Your task to perform on an android device: Open Chrome and go to the settings page Image 0: 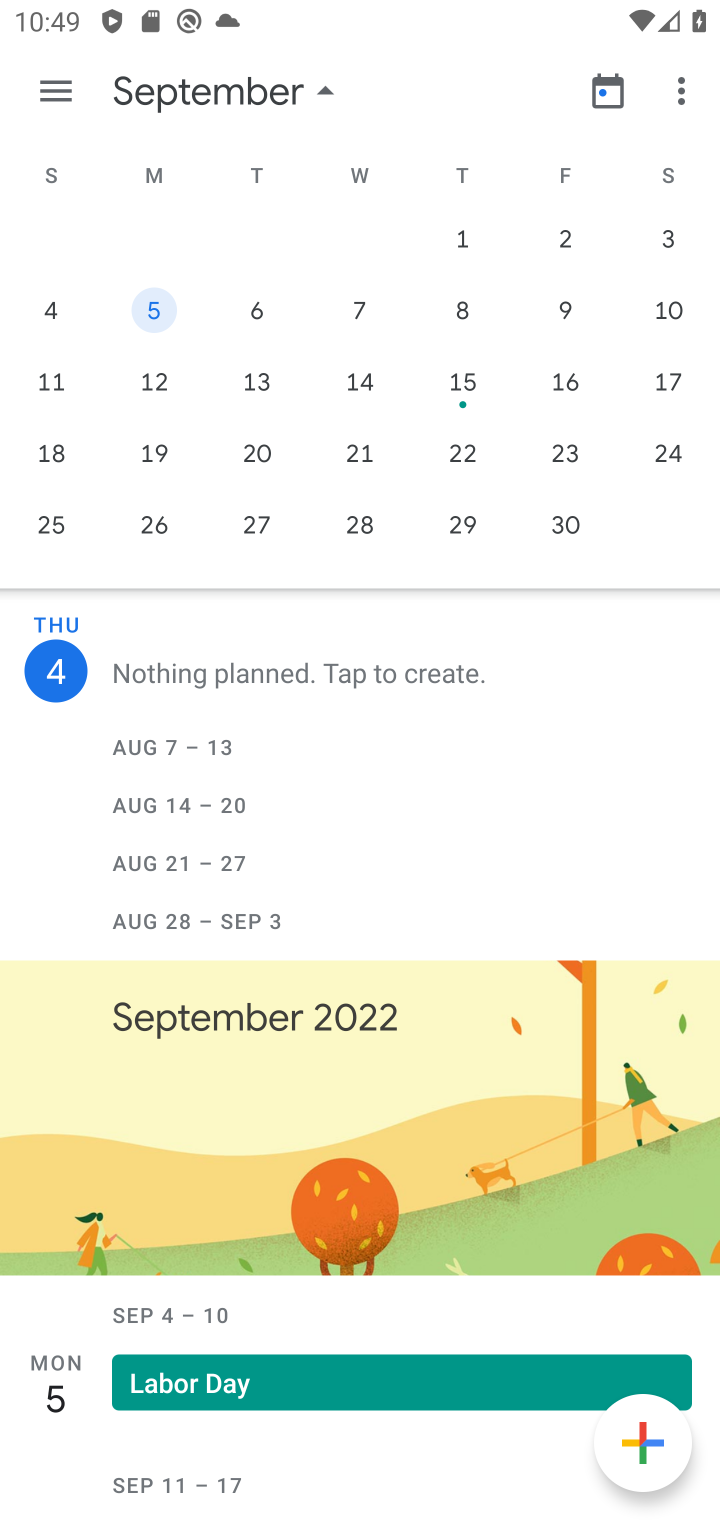
Step 0: press home button
Your task to perform on an android device: Open Chrome and go to the settings page Image 1: 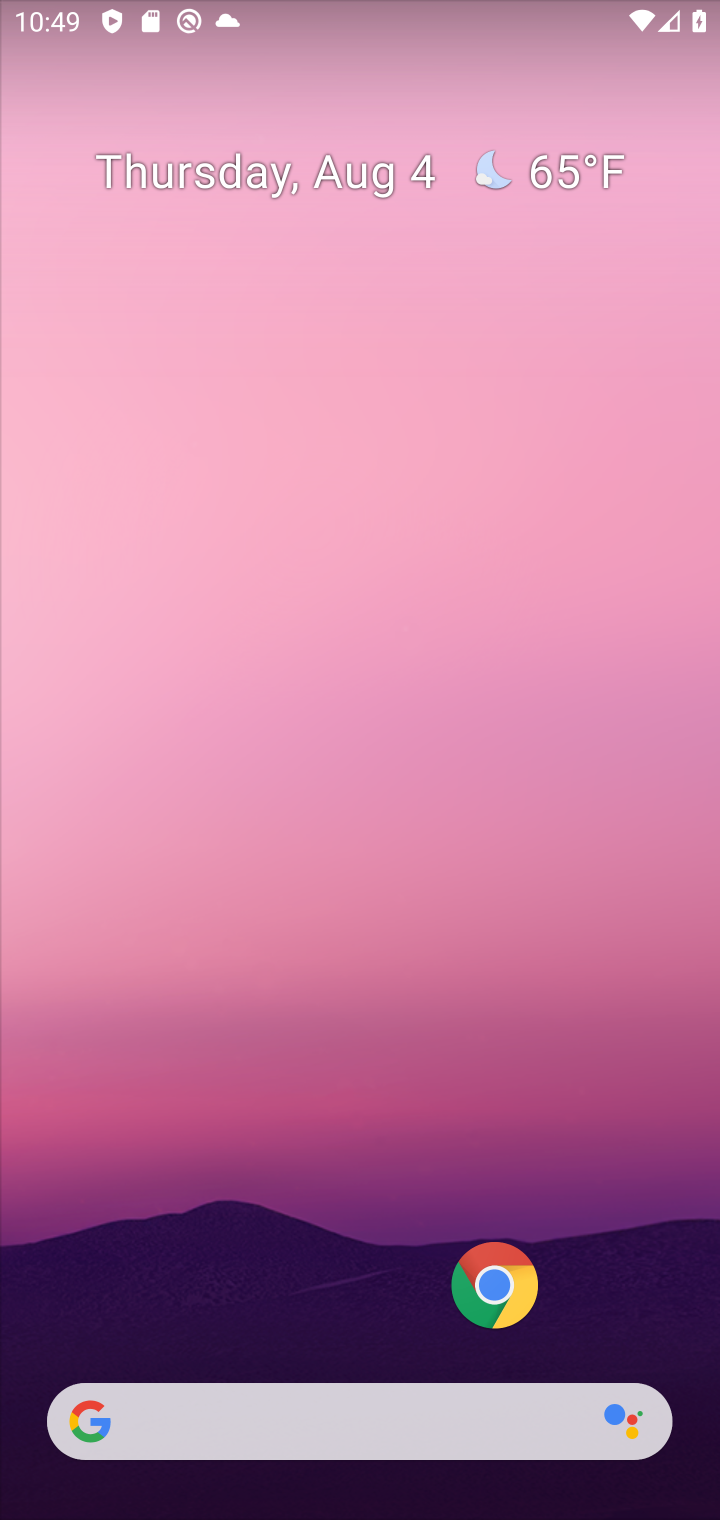
Step 1: drag from (369, 1130) to (689, 47)
Your task to perform on an android device: Open Chrome and go to the settings page Image 2: 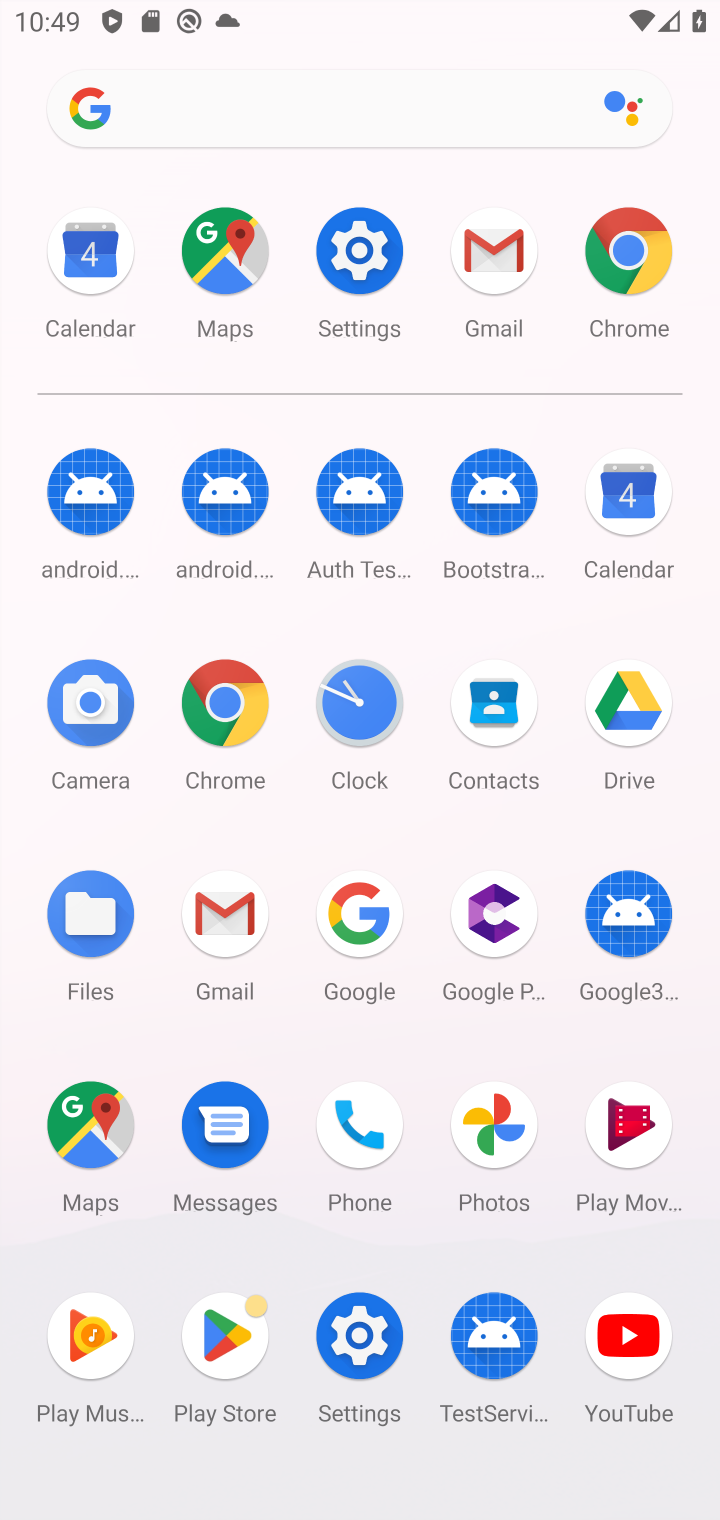
Step 2: click (221, 710)
Your task to perform on an android device: Open Chrome and go to the settings page Image 3: 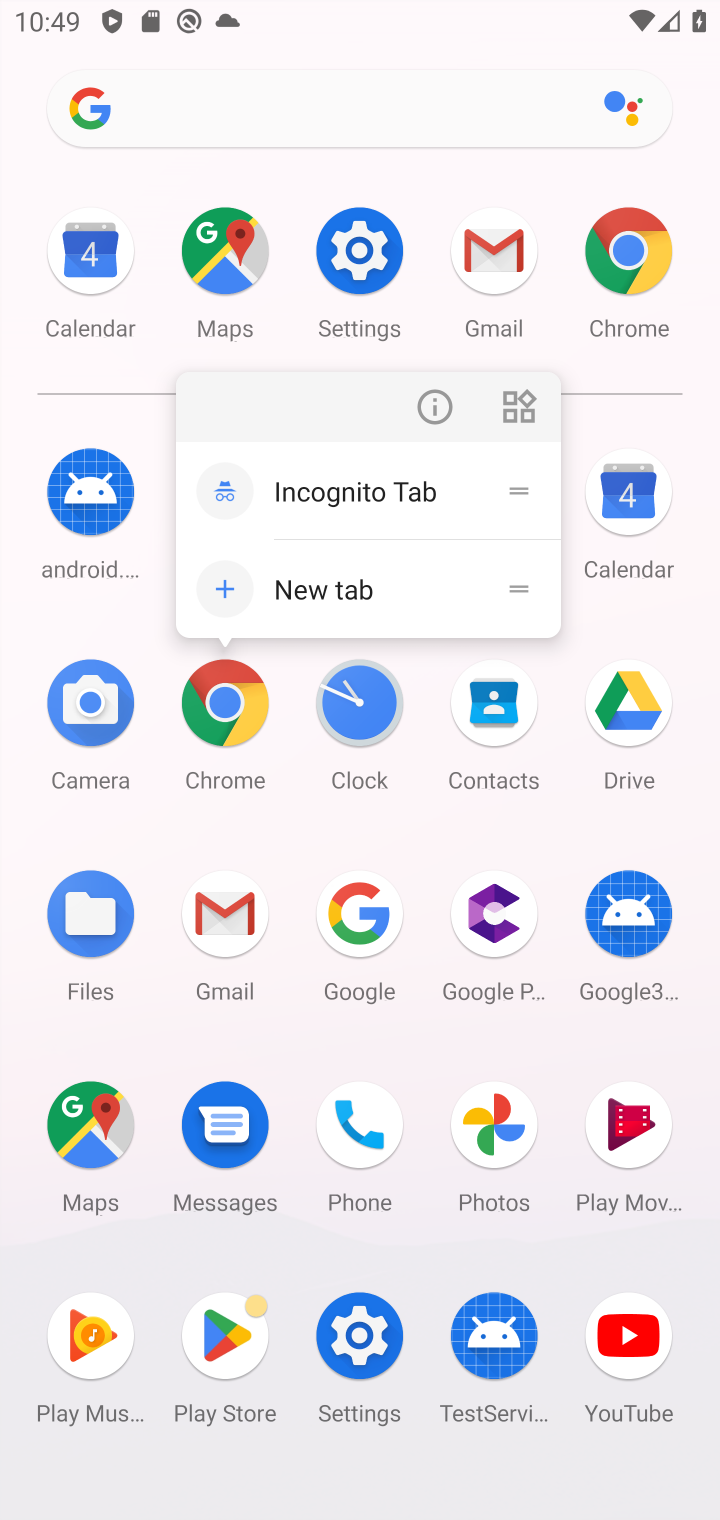
Step 3: click (208, 694)
Your task to perform on an android device: Open Chrome and go to the settings page Image 4: 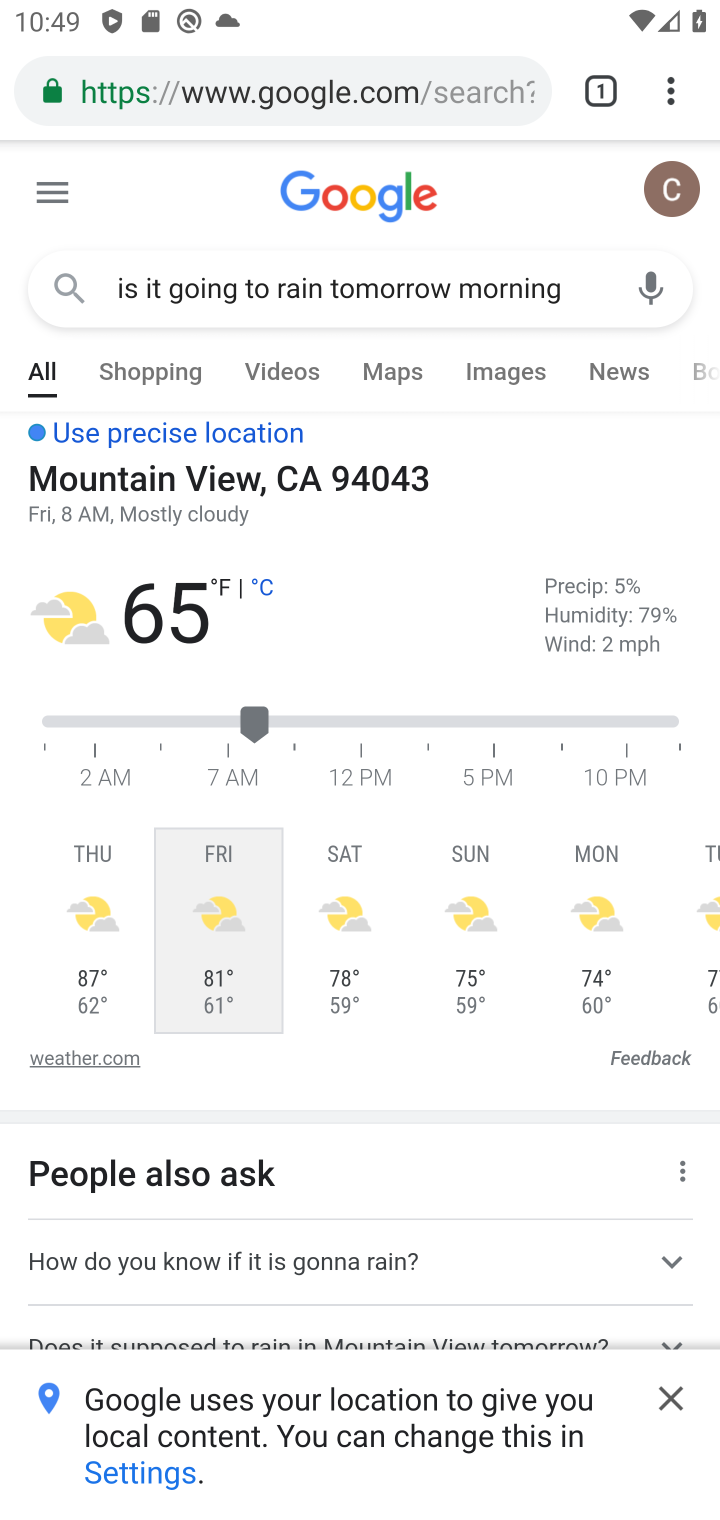
Step 4: task complete